Your task to perform on an android device: Go to Amazon Image 0: 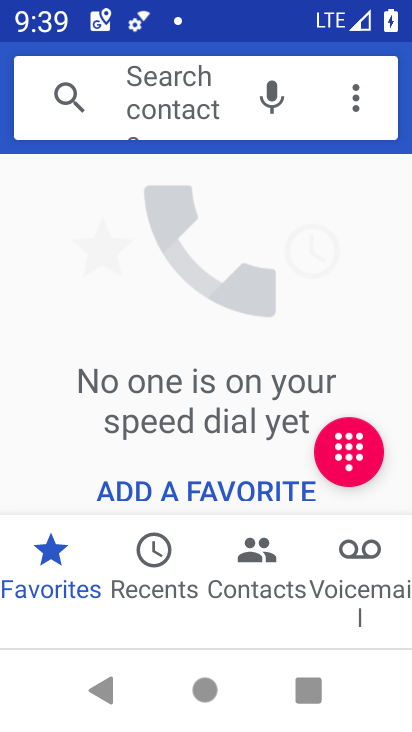
Step 0: press home button
Your task to perform on an android device: Go to Amazon Image 1: 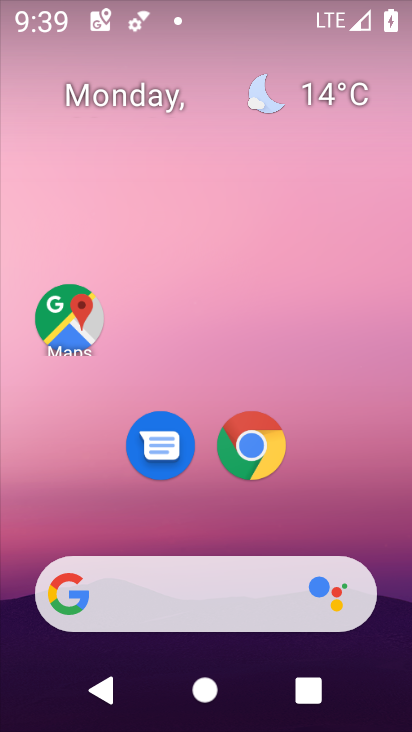
Step 1: click (255, 439)
Your task to perform on an android device: Go to Amazon Image 2: 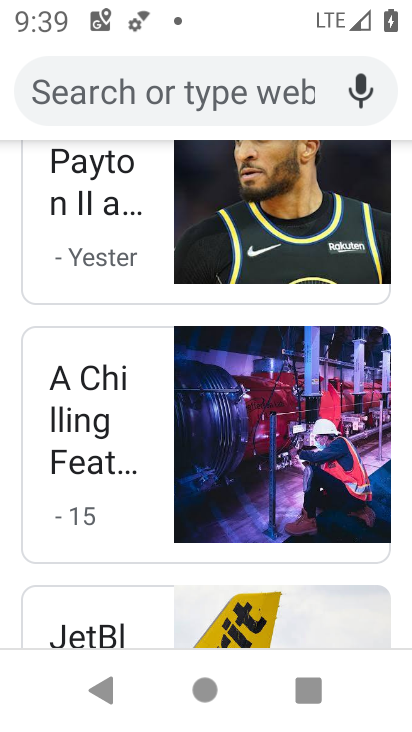
Step 2: drag from (150, 189) to (142, 721)
Your task to perform on an android device: Go to Amazon Image 3: 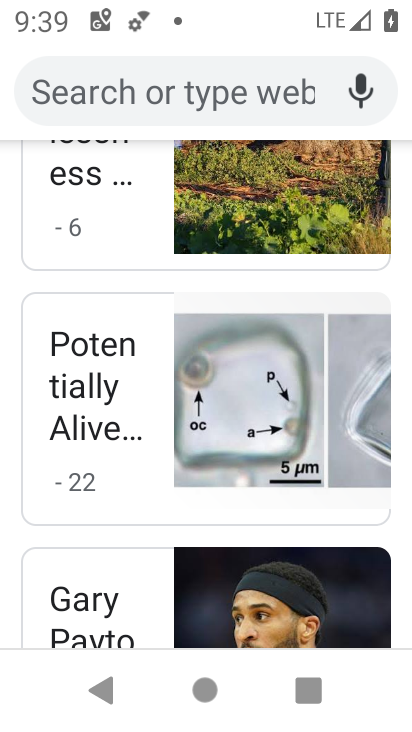
Step 3: drag from (149, 174) to (152, 661)
Your task to perform on an android device: Go to Amazon Image 4: 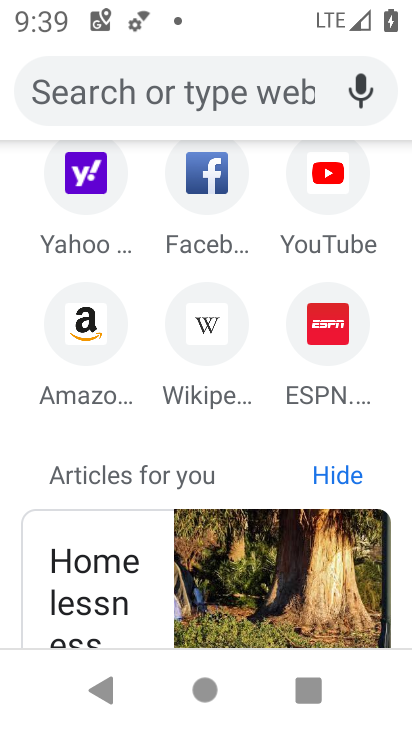
Step 4: click (77, 320)
Your task to perform on an android device: Go to Amazon Image 5: 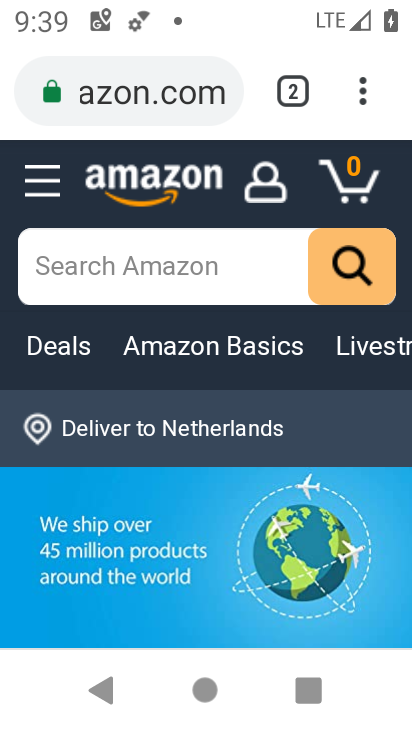
Step 5: task complete